Your task to perform on an android device: choose inbox layout in the gmail app Image 0: 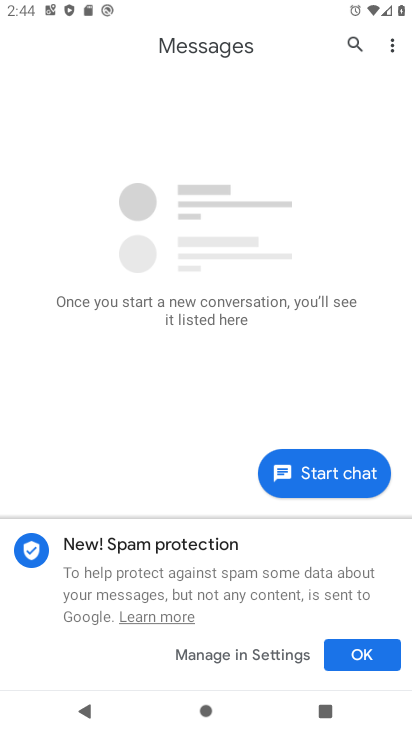
Step 0: press home button
Your task to perform on an android device: choose inbox layout in the gmail app Image 1: 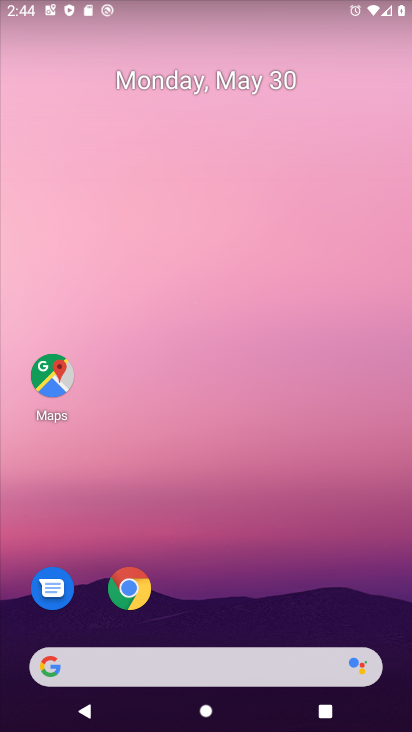
Step 1: drag from (239, 587) to (221, 70)
Your task to perform on an android device: choose inbox layout in the gmail app Image 2: 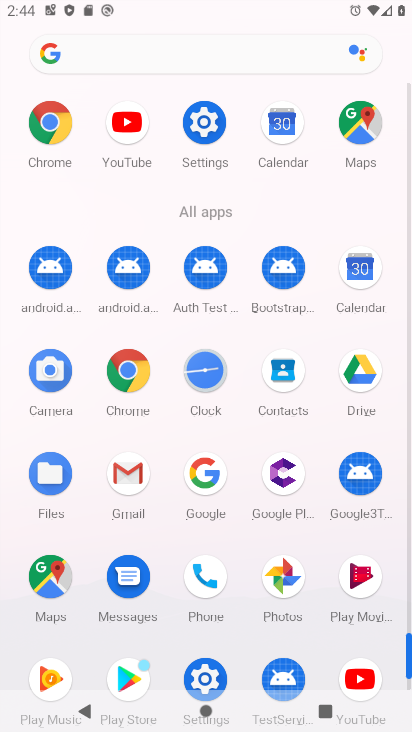
Step 2: click (132, 459)
Your task to perform on an android device: choose inbox layout in the gmail app Image 3: 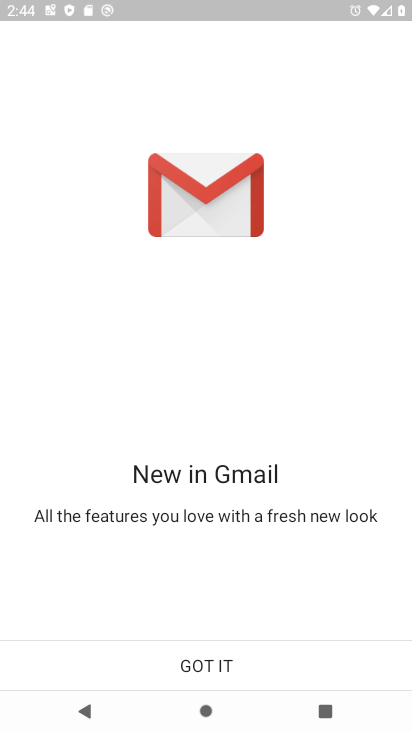
Step 3: click (195, 669)
Your task to perform on an android device: choose inbox layout in the gmail app Image 4: 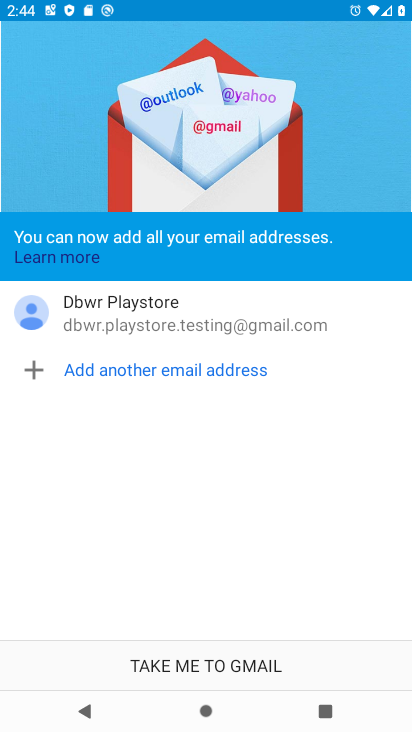
Step 4: click (149, 676)
Your task to perform on an android device: choose inbox layout in the gmail app Image 5: 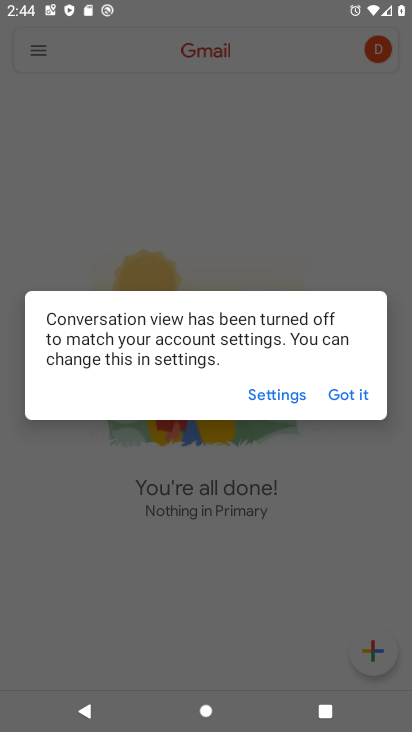
Step 5: click (335, 393)
Your task to perform on an android device: choose inbox layout in the gmail app Image 6: 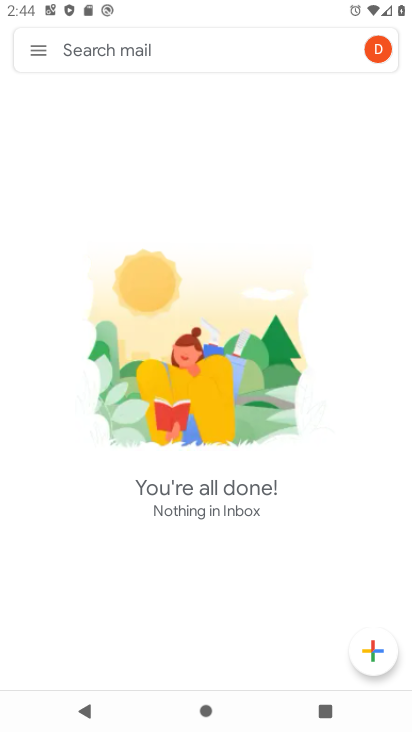
Step 6: click (37, 70)
Your task to perform on an android device: choose inbox layout in the gmail app Image 7: 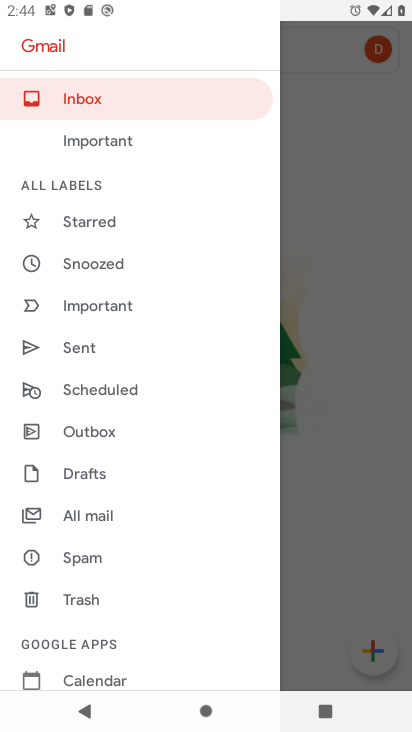
Step 7: drag from (111, 664) to (109, 268)
Your task to perform on an android device: choose inbox layout in the gmail app Image 8: 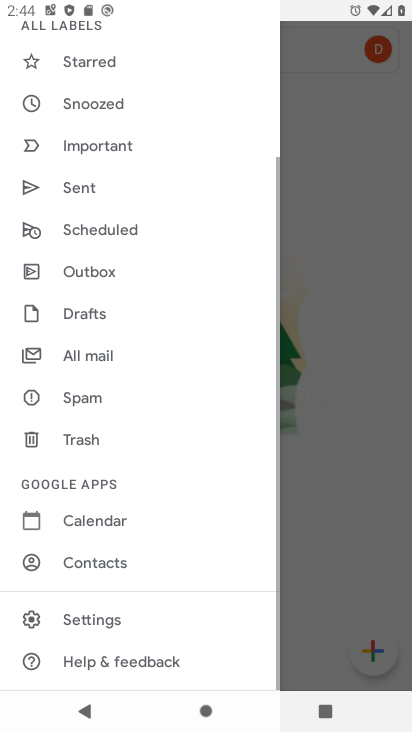
Step 8: click (106, 616)
Your task to perform on an android device: choose inbox layout in the gmail app Image 9: 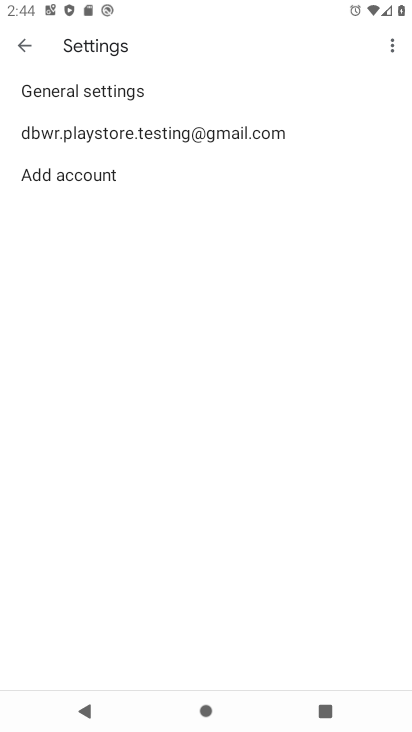
Step 9: click (95, 125)
Your task to perform on an android device: choose inbox layout in the gmail app Image 10: 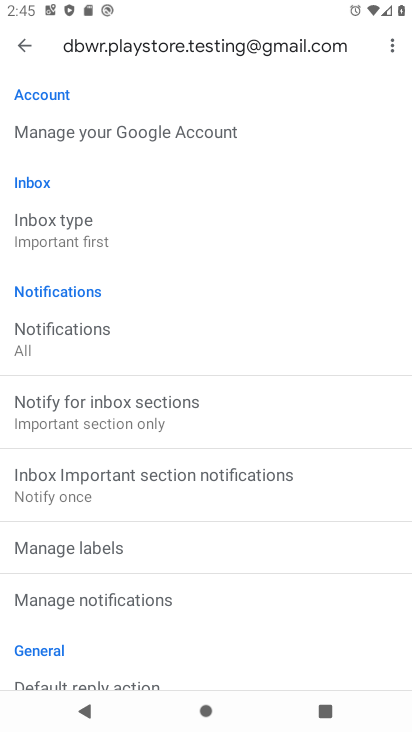
Step 10: click (90, 232)
Your task to perform on an android device: choose inbox layout in the gmail app Image 11: 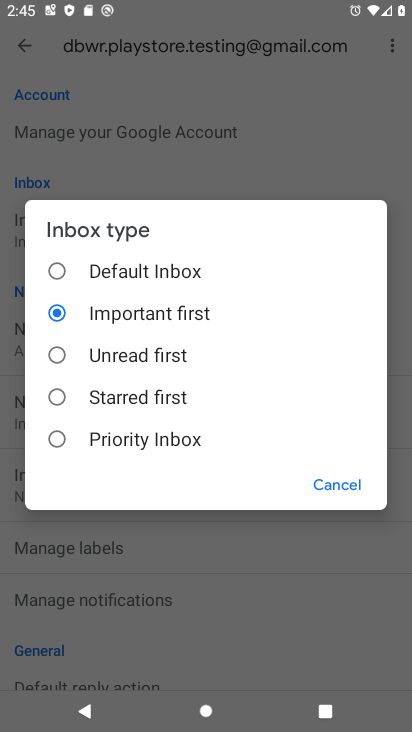
Step 11: click (92, 269)
Your task to perform on an android device: choose inbox layout in the gmail app Image 12: 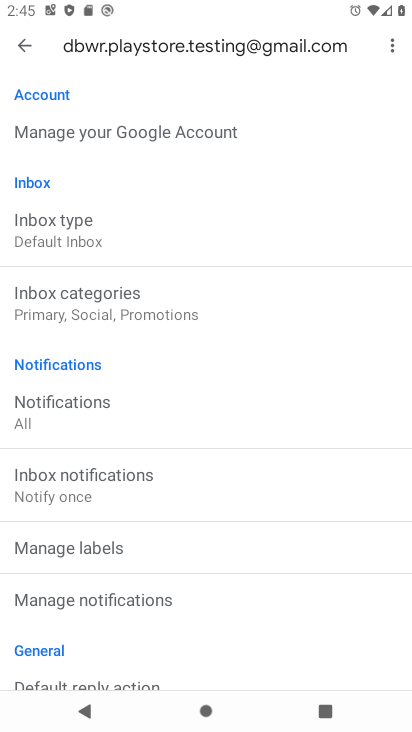
Step 12: task complete